Your task to perform on an android device: open wifi settings Image 0: 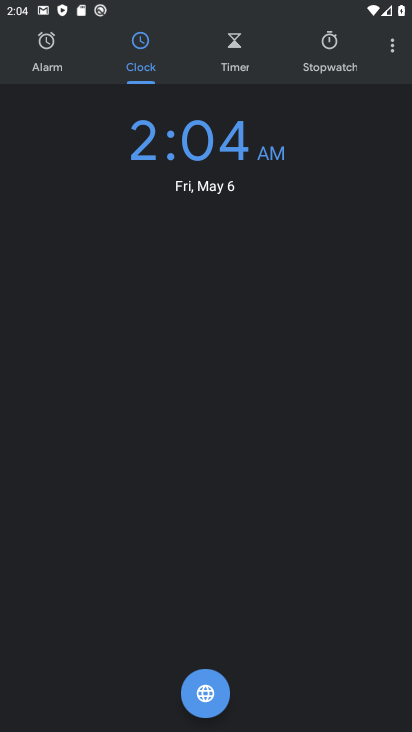
Step 0: press home button
Your task to perform on an android device: open wifi settings Image 1: 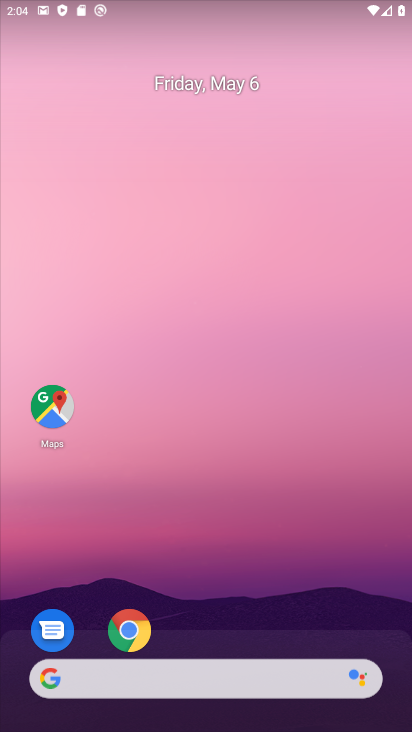
Step 1: drag from (226, 621) to (212, 189)
Your task to perform on an android device: open wifi settings Image 2: 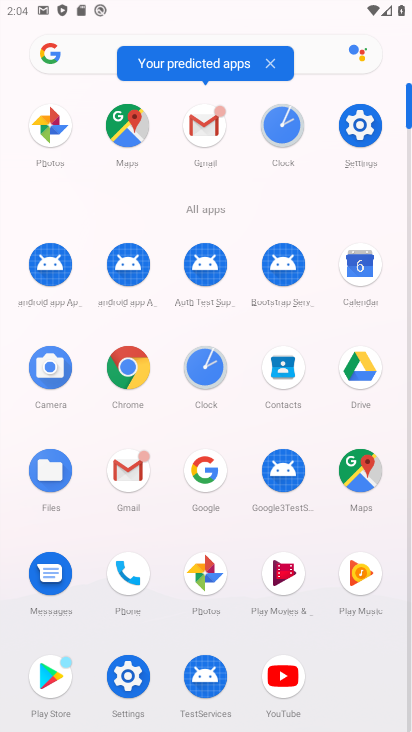
Step 2: click (347, 134)
Your task to perform on an android device: open wifi settings Image 3: 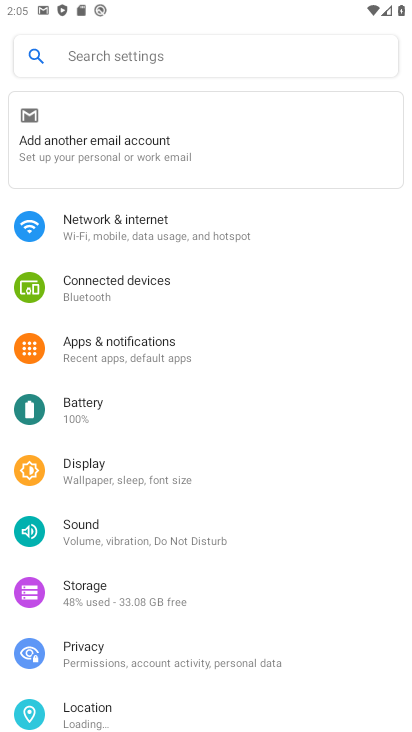
Step 3: click (167, 116)
Your task to perform on an android device: open wifi settings Image 4: 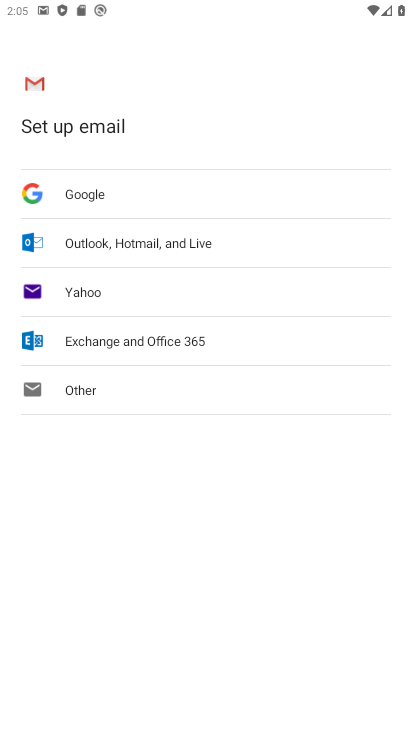
Step 4: press home button
Your task to perform on an android device: open wifi settings Image 5: 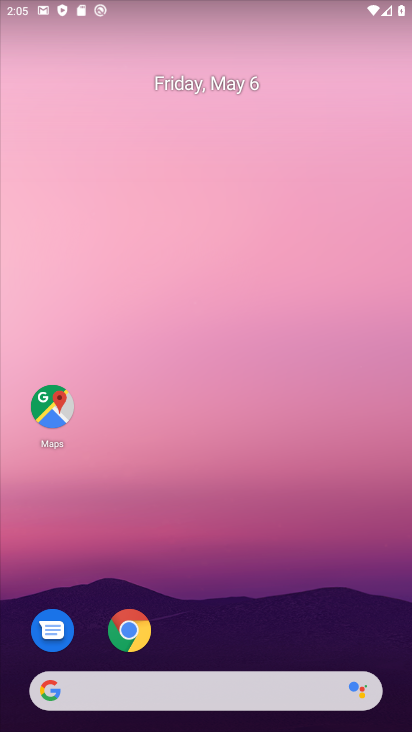
Step 5: drag from (246, 634) to (214, 43)
Your task to perform on an android device: open wifi settings Image 6: 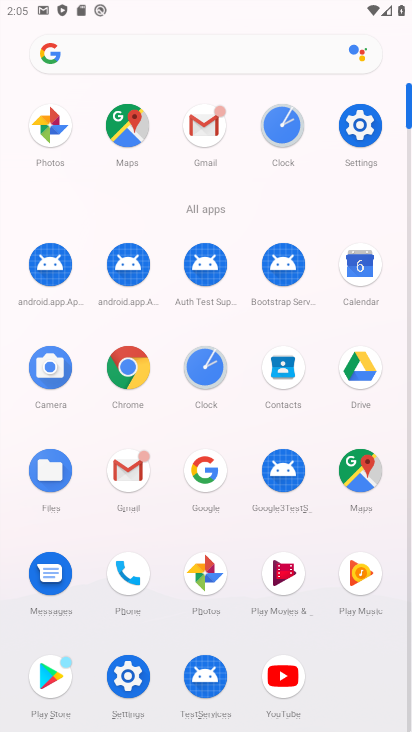
Step 6: click (362, 110)
Your task to perform on an android device: open wifi settings Image 7: 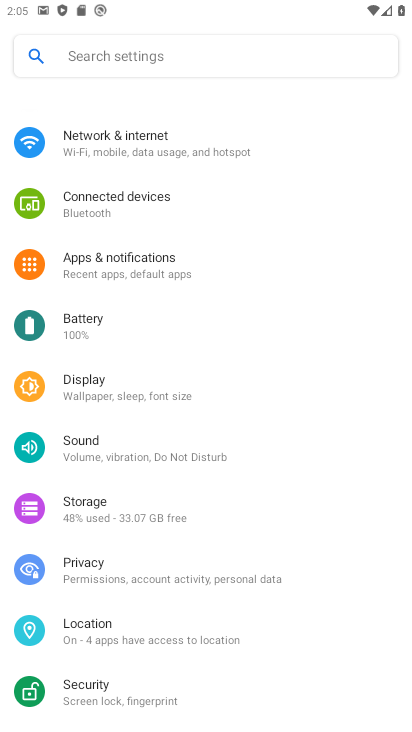
Step 7: click (212, 128)
Your task to perform on an android device: open wifi settings Image 8: 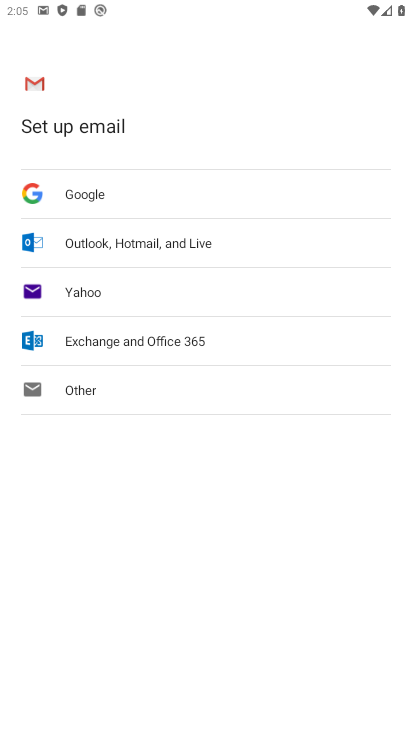
Step 8: press back button
Your task to perform on an android device: open wifi settings Image 9: 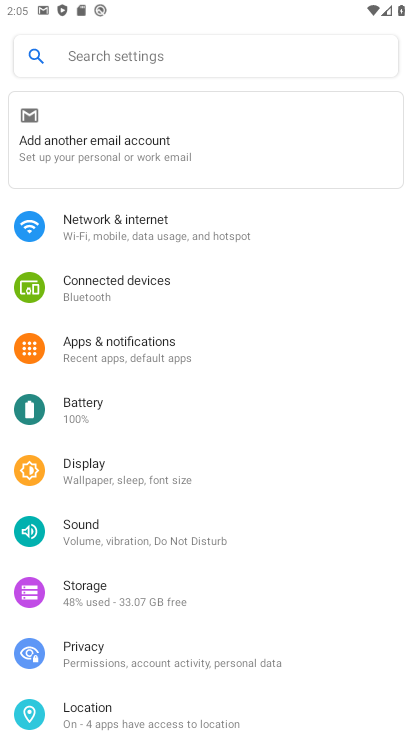
Step 9: click (129, 125)
Your task to perform on an android device: open wifi settings Image 10: 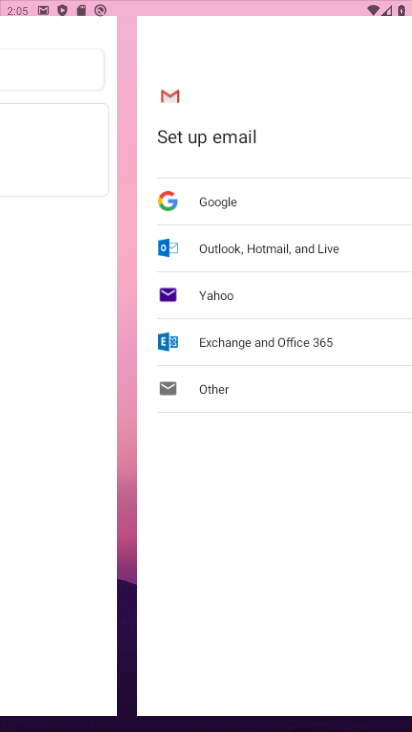
Step 10: click (132, 223)
Your task to perform on an android device: open wifi settings Image 11: 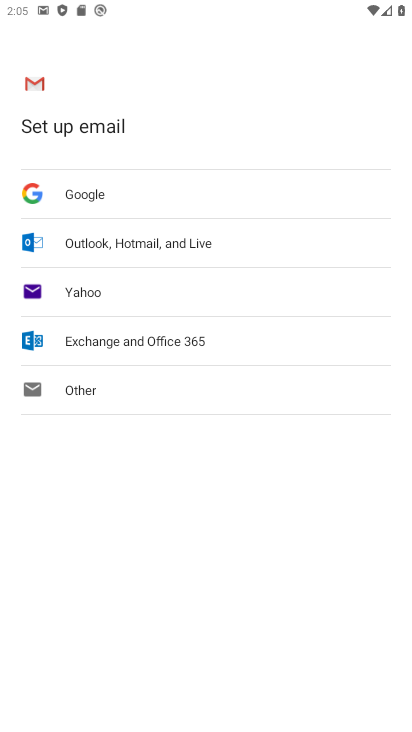
Step 11: press back button
Your task to perform on an android device: open wifi settings Image 12: 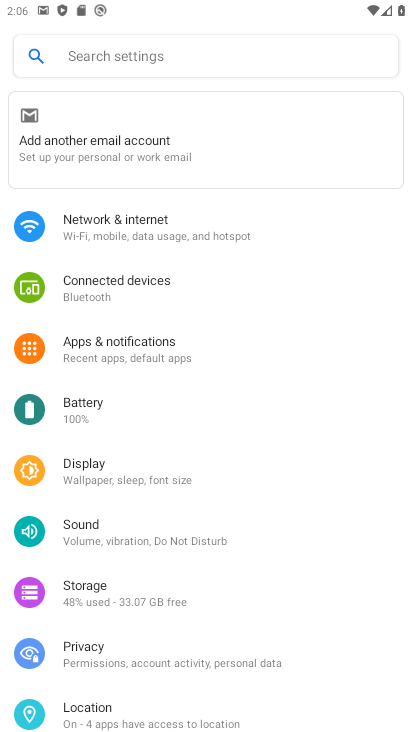
Step 12: click (153, 242)
Your task to perform on an android device: open wifi settings Image 13: 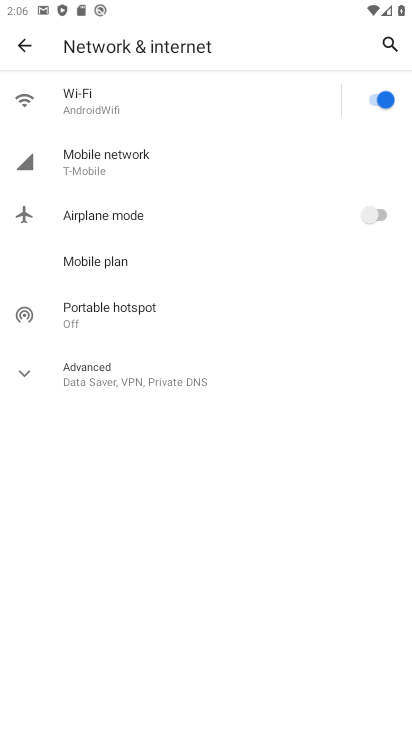
Step 13: click (150, 87)
Your task to perform on an android device: open wifi settings Image 14: 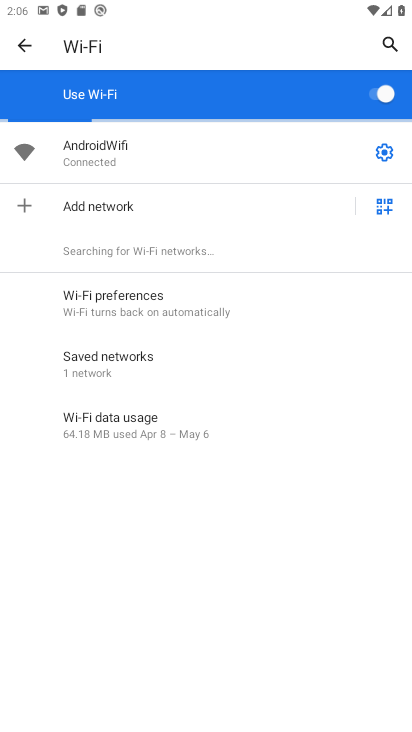
Step 14: task complete